Your task to perform on an android device: Do I have any events this weekend? Image 0: 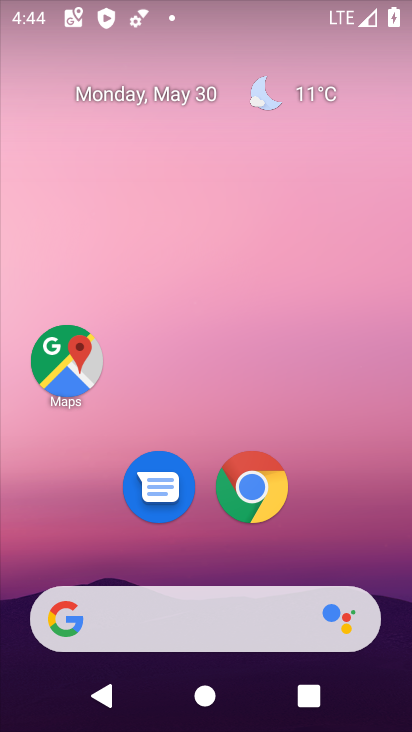
Step 0: drag from (394, 614) to (339, 159)
Your task to perform on an android device: Do I have any events this weekend? Image 1: 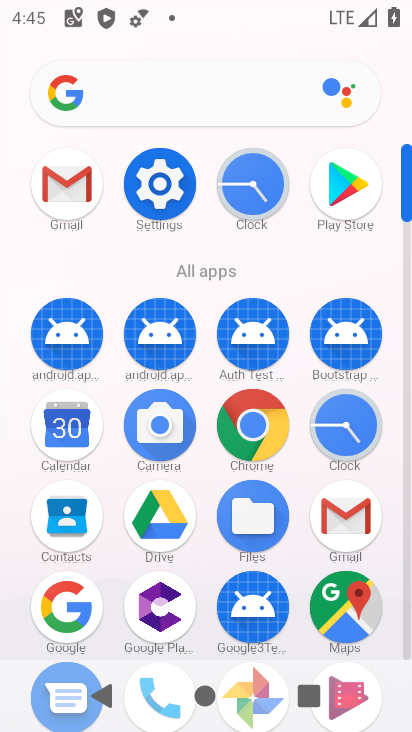
Step 1: click (406, 634)
Your task to perform on an android device: Do I have any events this weekend? Image 2: 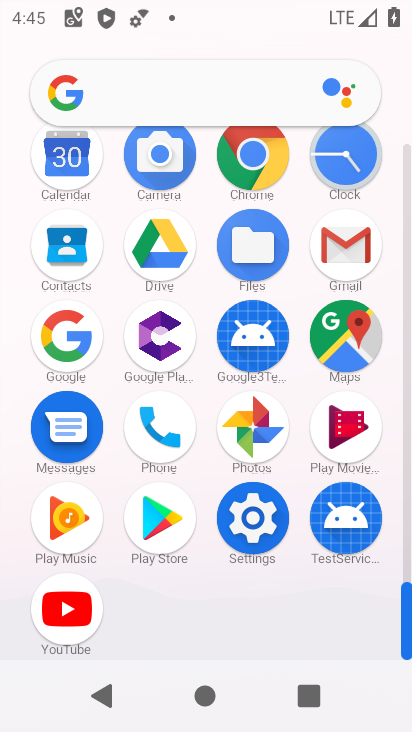
Step 2: click (65, 154)
Your task to perform on an android device: Do I have any events this weekend? Image 3: 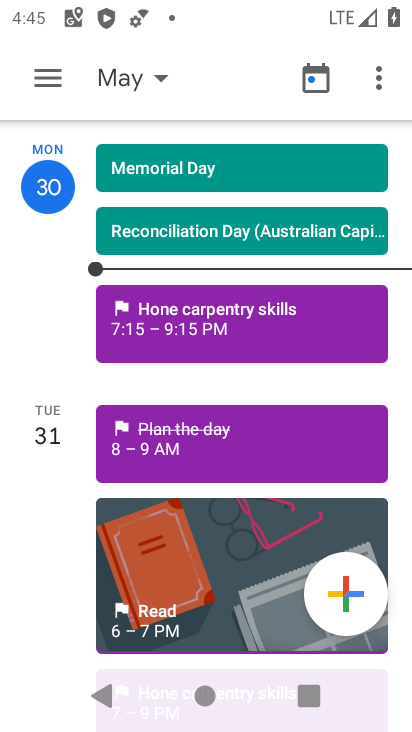
Step 3: click (50, 67)
Your task to perform on an android device: Do I have any events this weekend? Image 4: 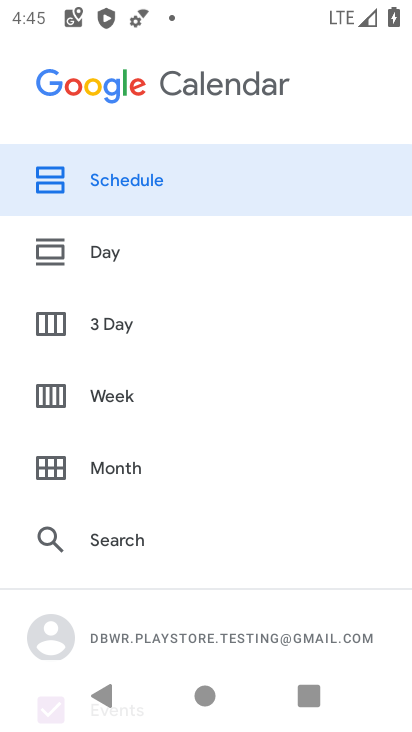
Step 4: click (118, 390)
Your task to perform on an android device: Do I have any events this weekend? Image 5: 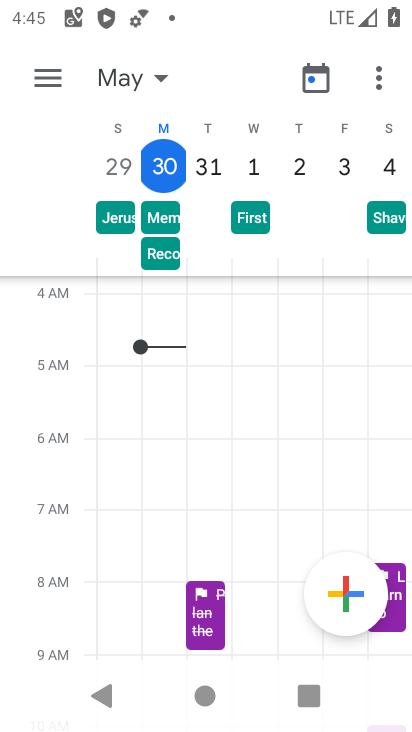
Step 5: task complete